Your task to perform on an android device: uninstall "Spotify: Music and Podcasts" Image 0: 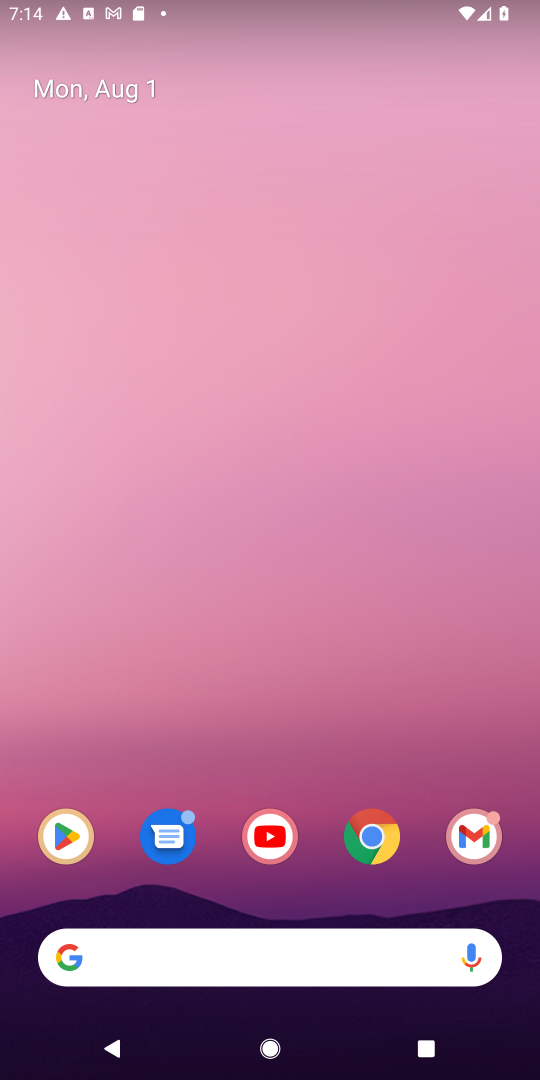
Step 0: press home button
Your task to perform on an android device: uninstall "Spotify: Music and Podcasts" Image 1: 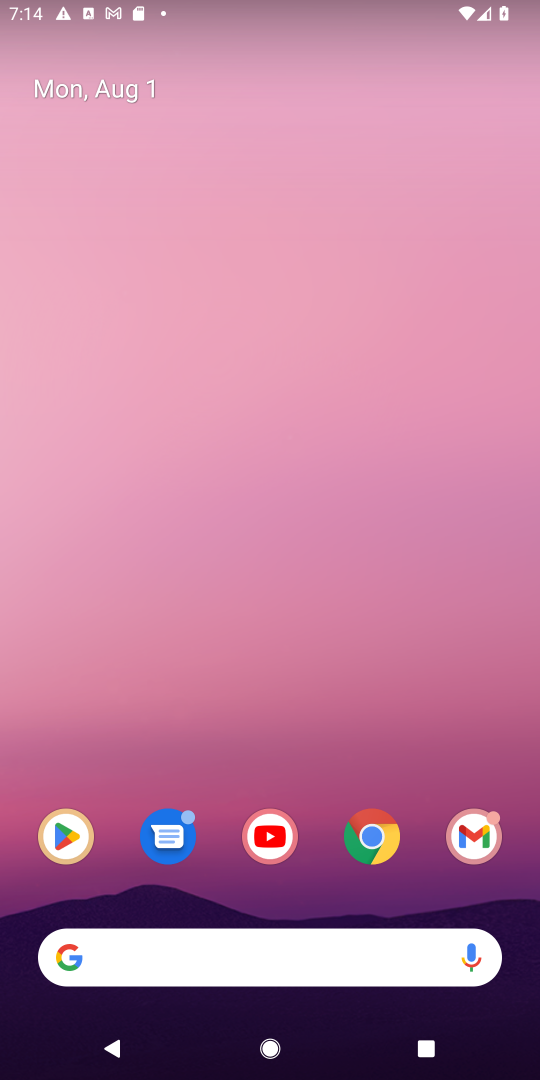
Step 1: click (58, 832)
Your task to perform on an android device: uninstall "Spotify: Music and Podcasts" Image 2: 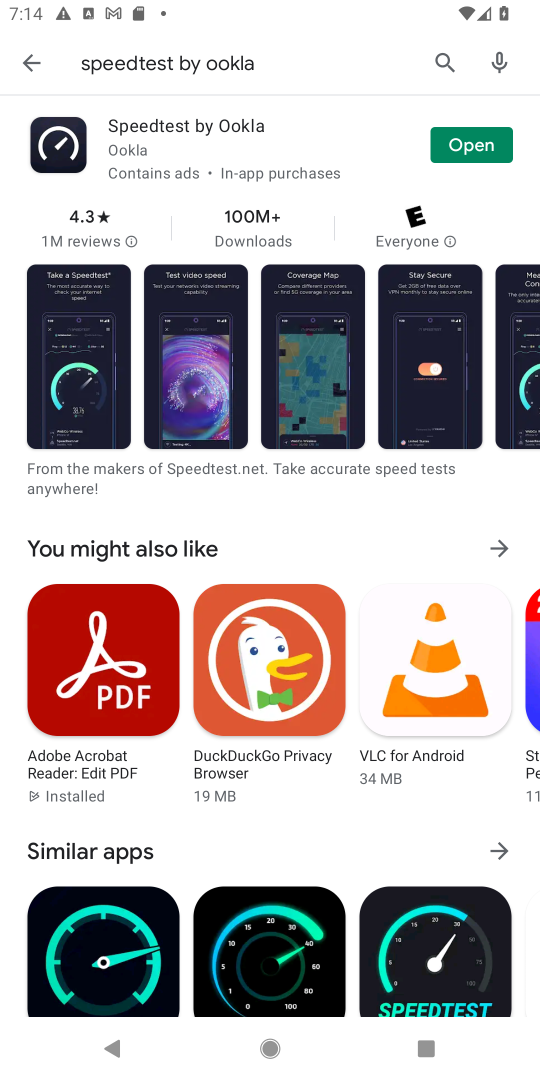
Step 2: click (438, 64)
Your task to perform on an android device: uninstall "Spotify: Music and Podcasts" Image 3: 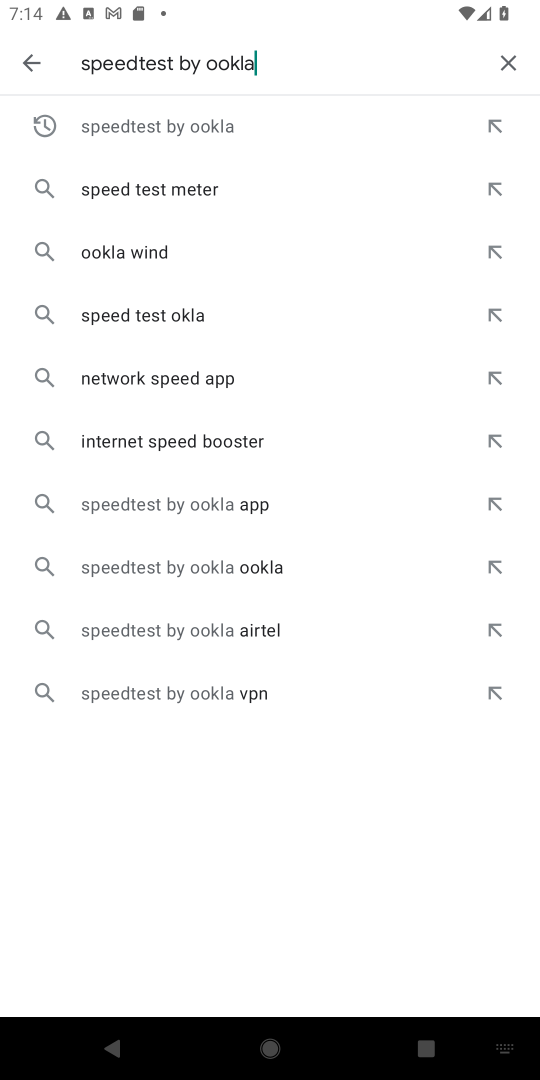
Step 3: click (507, 65)
Your task to perform on an android device: uninstall "Spotify: Music and Podcasts" Image 4: 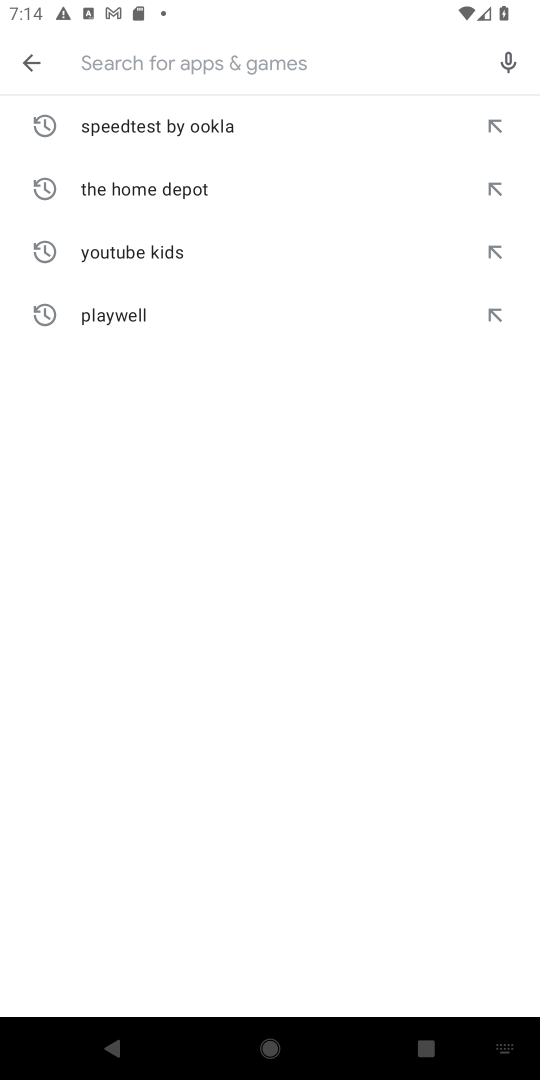
Step 4: type "Spotify: Music and Podcasts"
Your task to perform on an android device: uninstall "Spotify: Music and Podcasts" Image 5: 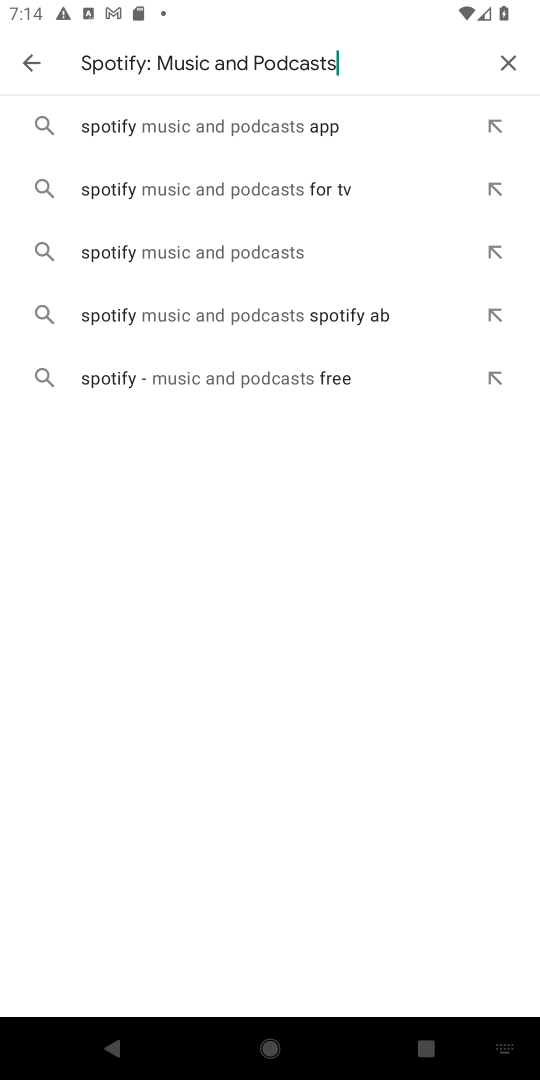
Step 5: click (189, 123)
Your task to perform on an android device: uninstall "Spotify: Music and Podcasts" Image 6: 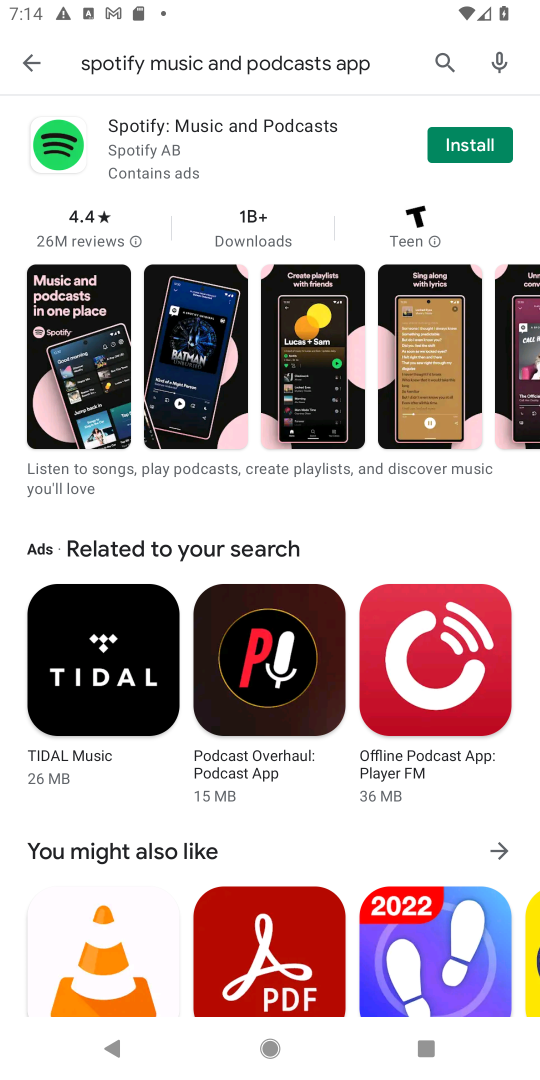
Step 6: task complete